Your task to perform on an android device: See recent photos Image 0: 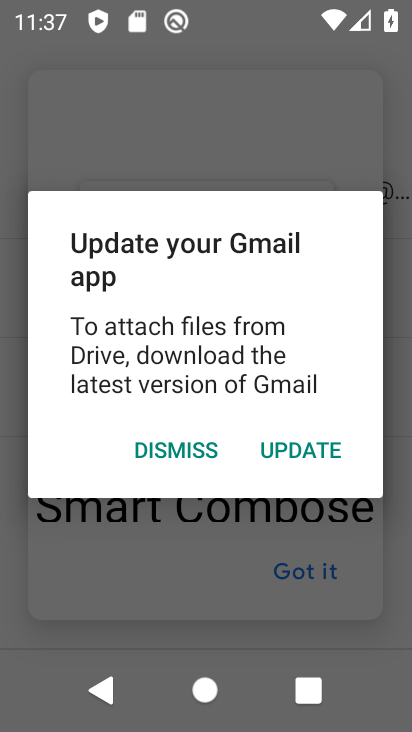
Step 0: press home button
Your task to perform on an android device: See recent photos Image 1: 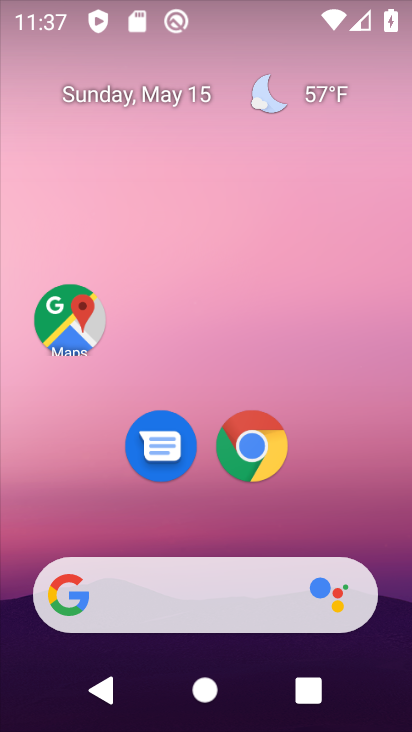
Step 1: drag from (191, 538) to (249, 54)
Your task to perform on an android device: See recent photos Image 2: 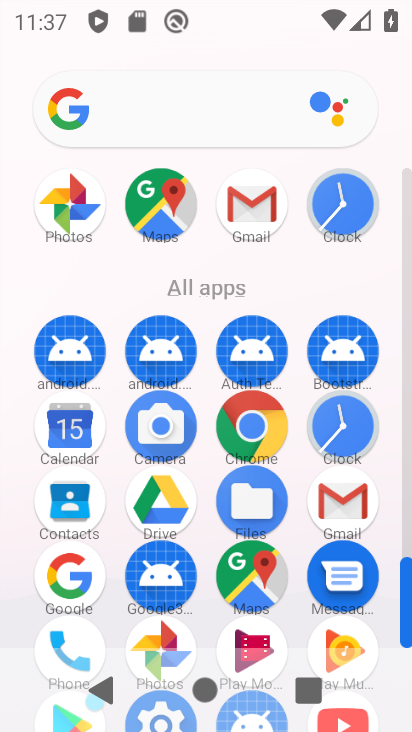
Step 2: drag from (202, 543) to (293, 53)
Your task to perform on an android device: See recent photos Image 3: 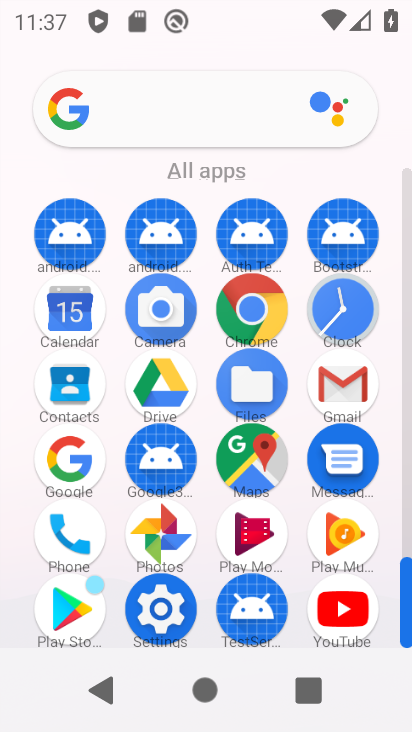
Step 3: click (170, 535)
Your task to perform on an android device: See recent photos Image 4: 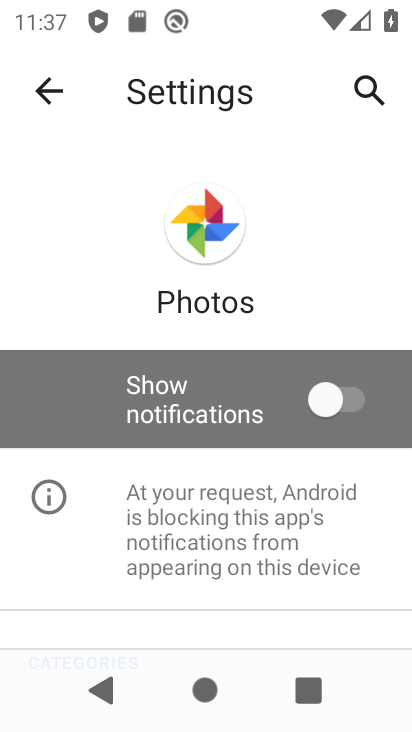
Step 4: click (49, 95)
Your task to perform on an android device: See recent photos Image 5: 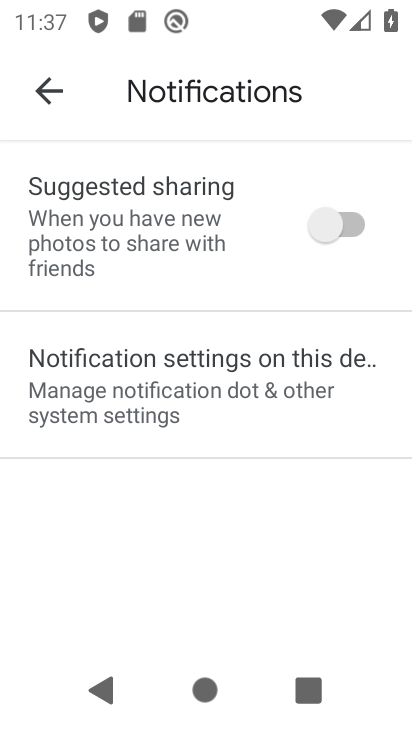
Step 5: click (52, 82)
Your task to perform on an android device: See recent photos Image 6: 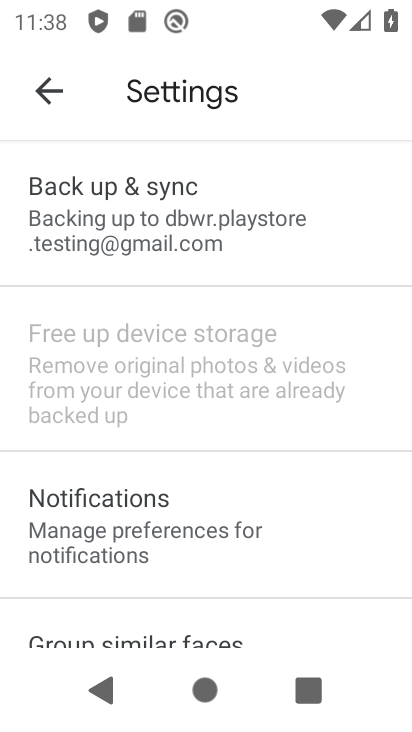
Step 6: click (60, 93)
Your task to perform on an android device: See recent photos Image 7: 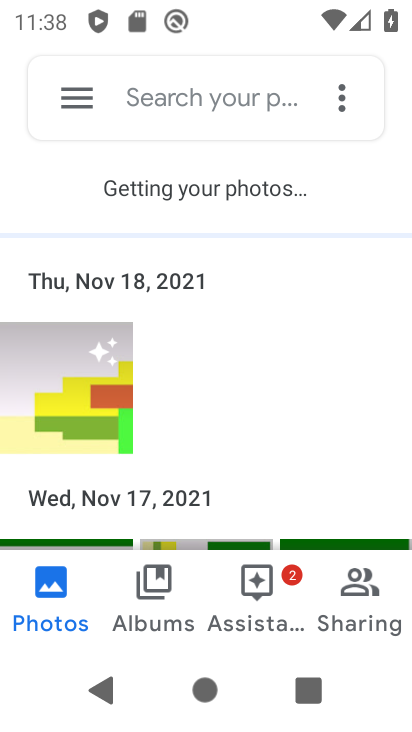
Step 7: task complete